Your task to perform on an android device: Search for Italian restaurants on Maps Image 0: 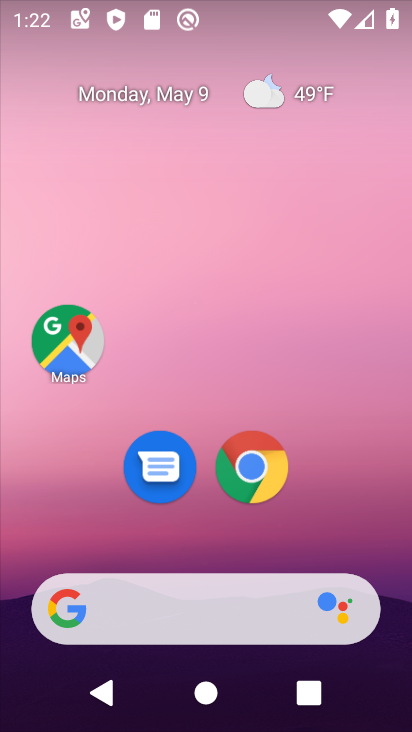
Step 0: drag from (376, 516) to (380, 262)
Your task to perform on an android device: Search for Italian restaurants on Maps Image 1: 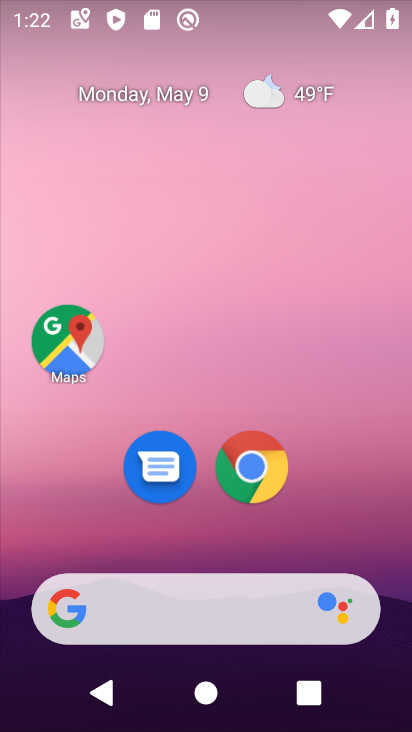
Step 1: drag from (336, 517) to (384, 126)
Your task to perform on an android device: Search for Italian restaurants on Maps Image 2: 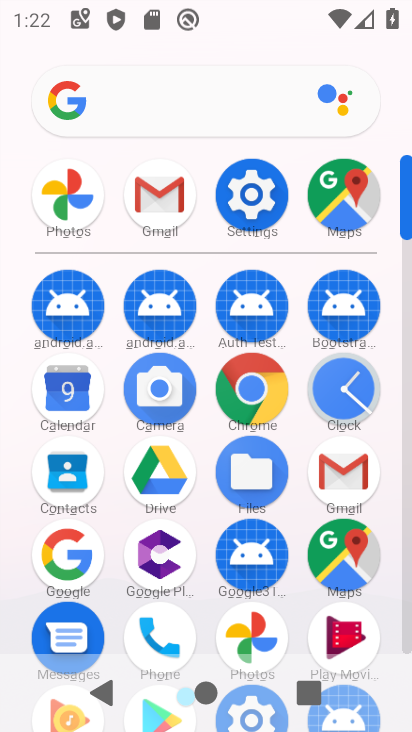
Step 2: click (360, 547)
Your task to perform on an android device: Search for Italian restaurants on Maps Image 3: 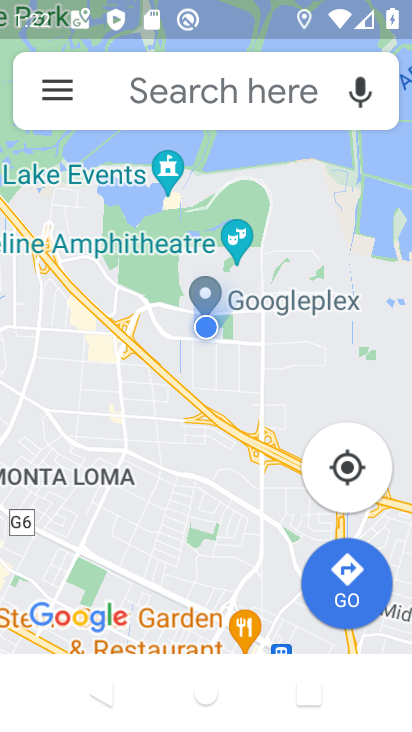
Step 3: click (165, 71)
Your task to perform on an android device: Search for Italian restaurants on Maps Image 4: 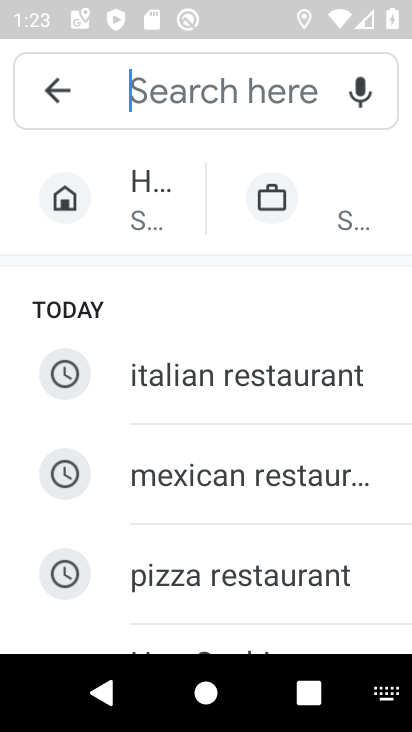
Step 4: click (247, 388)
Your task to perform on an android device: Search for Italian restaurants on Maps Image 5: 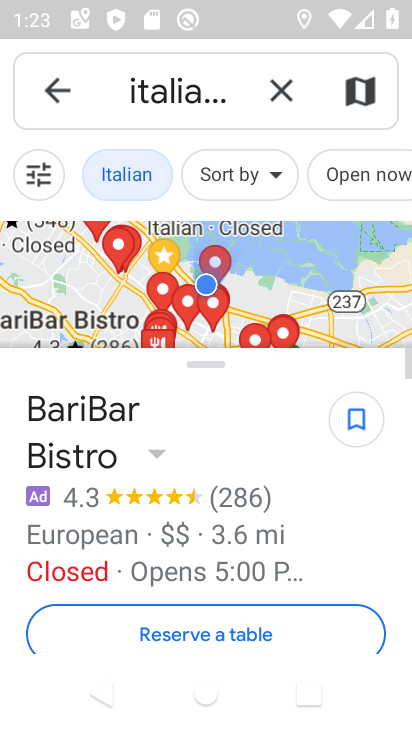
Step 5: task complete